Your task to perform on an android device: What's the weather? Image 0: 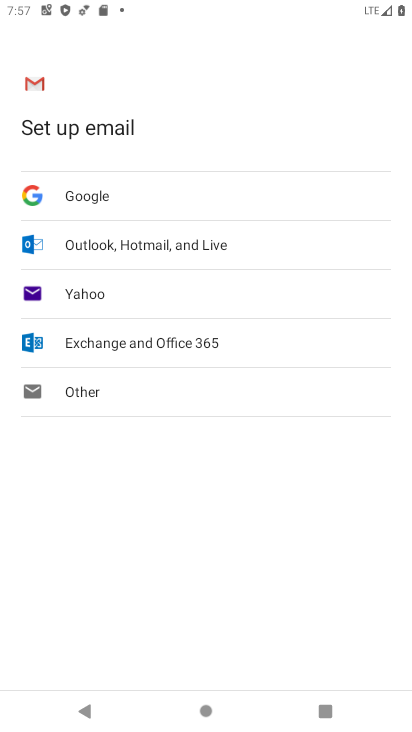
Step 0: press home button
Your task to perform on an android device: What's the weather? Image 1: 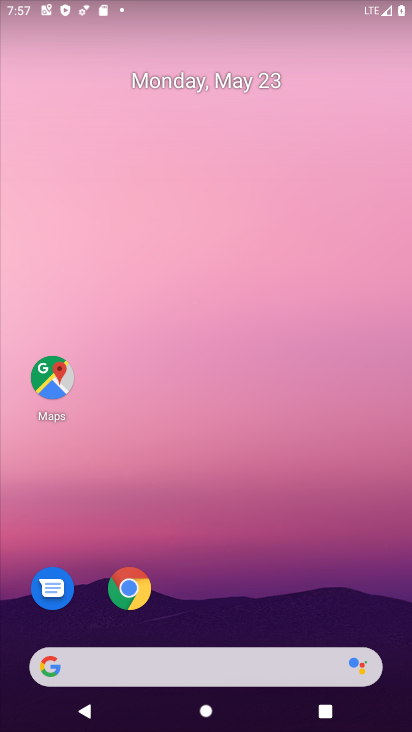
Step 1: drag from (5, 258) to (372, 242)
Your task to perform on an android device: What's the weather? Image 2: 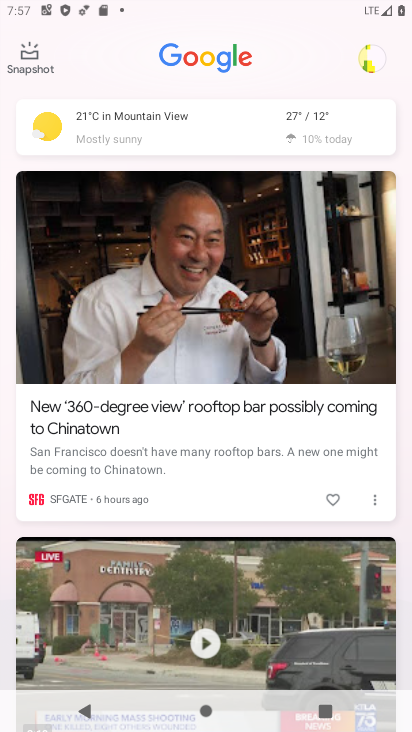
Step 2: click (302, 114)
Your task to perform on an android device: What's the weather? Image 3: 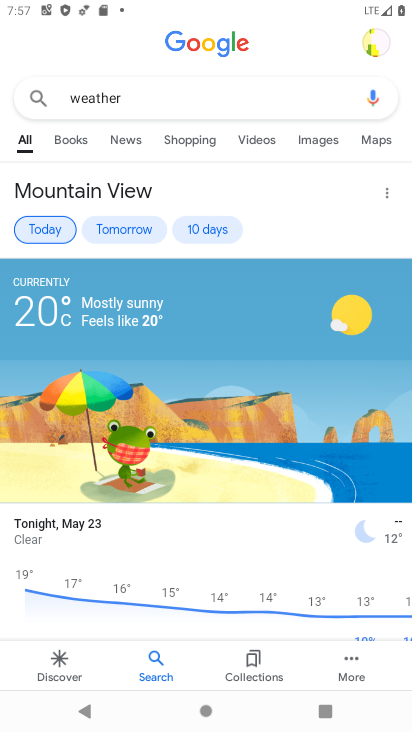
Step 3: click (47, 225)
Your task to perform on an android device: What's the weather? Image 4: 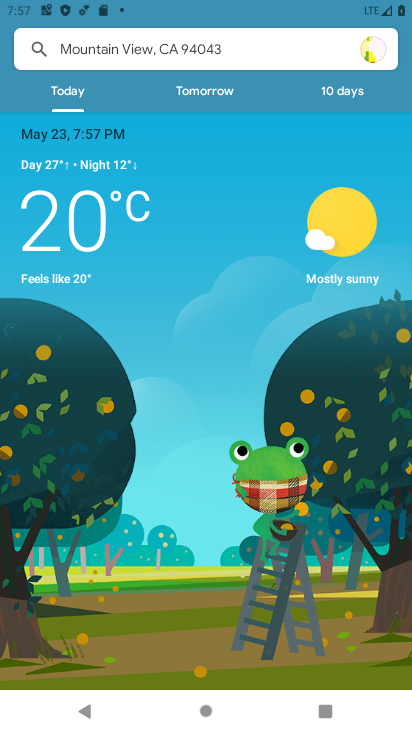
Step 4: task complete